Your task to perform on an android device: change timer sound Image 0: 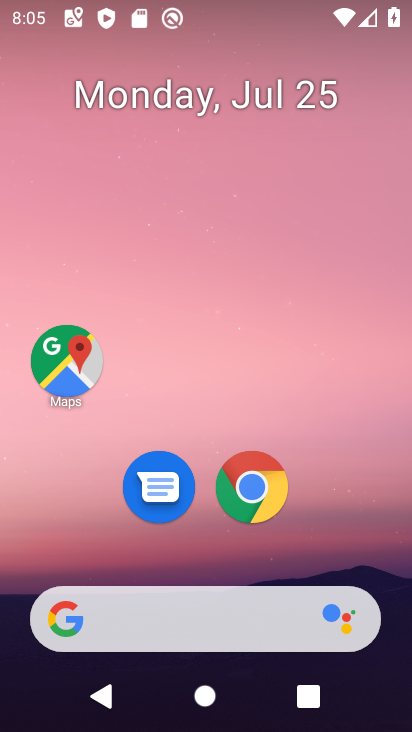
Step 0: drag from (193, 420) to (279, 18)
Your task to perform on an android device: change timer sound Image 1: 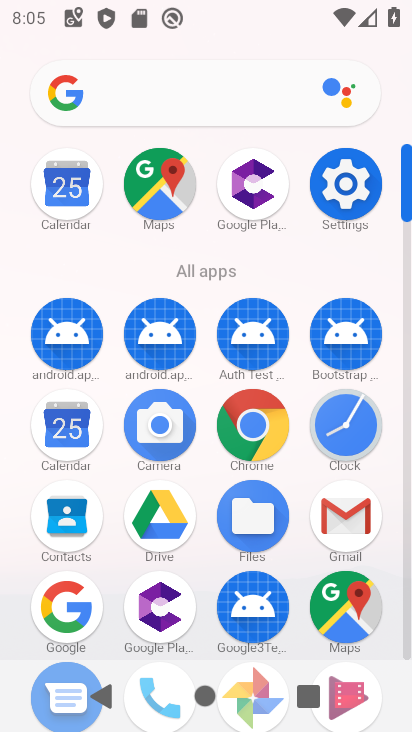
Step 1: click (357, 414)
Your task to perform on an android device: change timer sound Image 2: 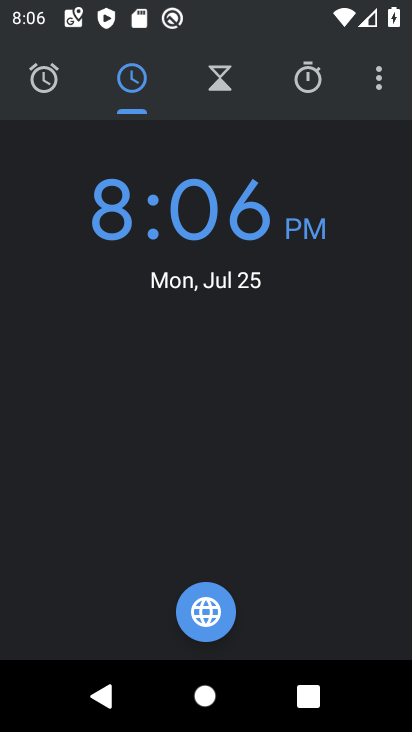
Step 2: click (377, 70)
Your task to perform on an android device: change timer sound Image 3: 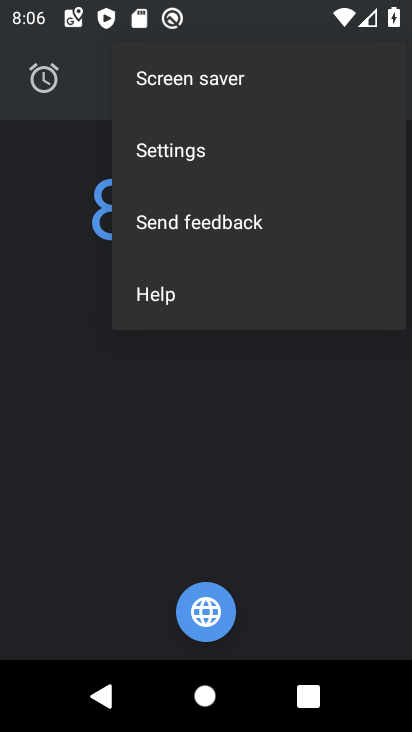
Step 3: click (206, 148)
Your task to perform on an android device: change timer sound Image 4: 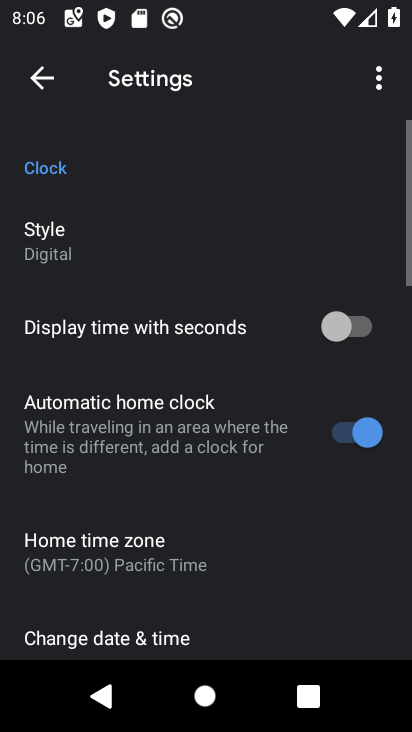
Step 4: drag from (130, 636) to (237, 86)
Your task to perform on an android device: change timer sound Image 5: 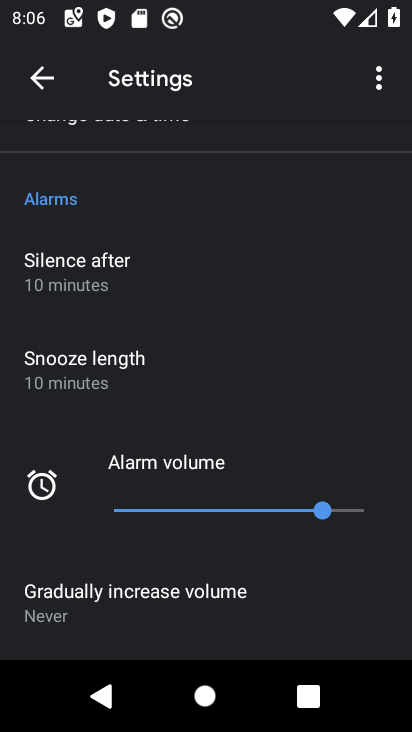
Step 5: drag from (212, 449) to (330, 175)
Your task to perform on an android device: change timer sound Image 6: 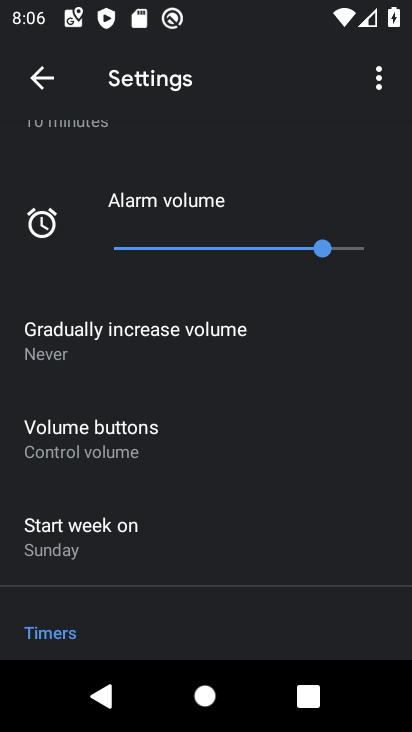
Step 6: drag from (150, 518) to (251, 133)
Your task to perform on an android device: change timer sound Image 7: 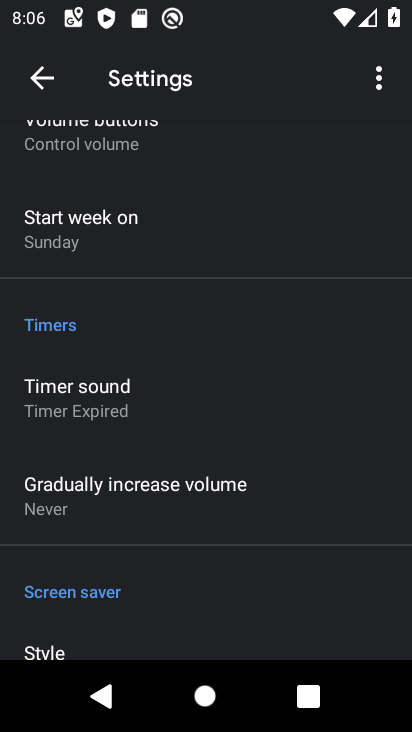
Step 7: click (85, 399)
Your task to perform on an android device: change timer sound Image 8: 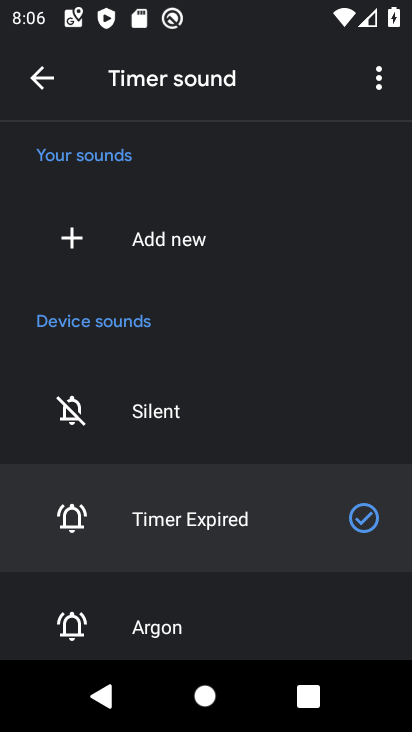
Step 8: click (128, 619)
Your task to perform on an android device: change timer sound Image 9: 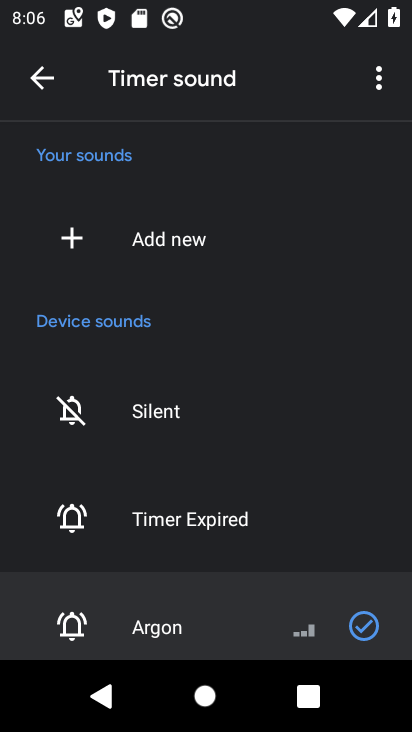
Step 9: task complete